Your task to perform on an android device: Open Google Chrome and open the bookmarks view Image 0: 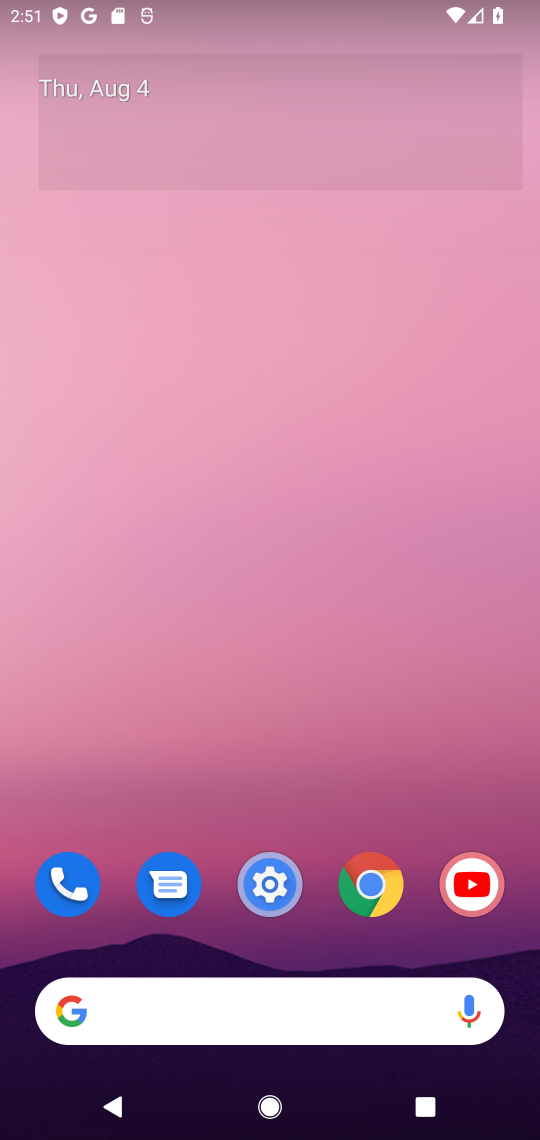
Step 0: drag from (229, 939) to (261, 429)
Your task to perform on an android device: Open Google Chrome and open the bookmarks view Image 1: 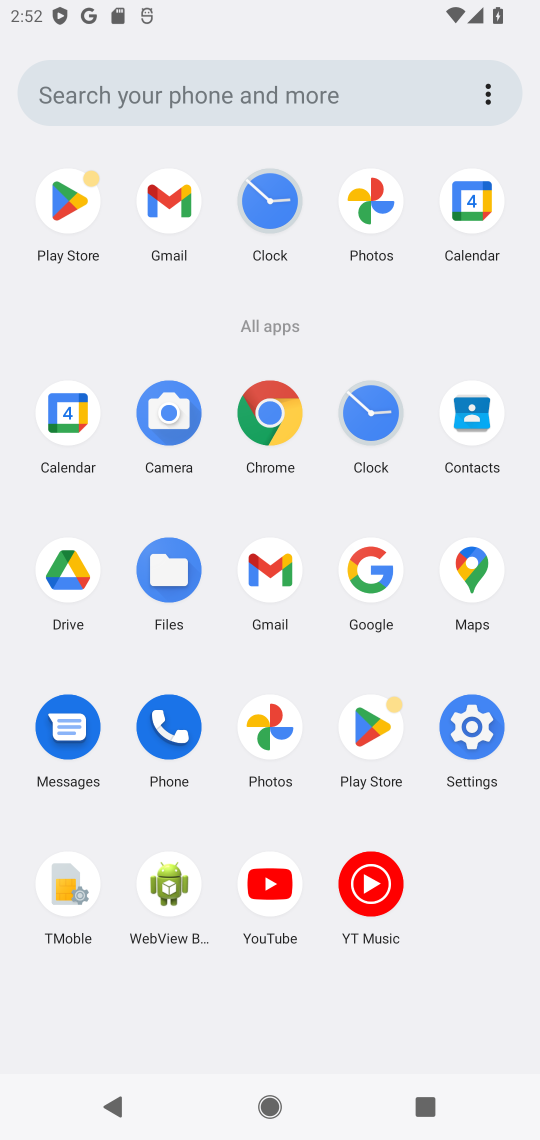
Step 1: click (274, 426)
Your task to perform on an android device: Open Google Chrome and open the bookmarks view Image 2: 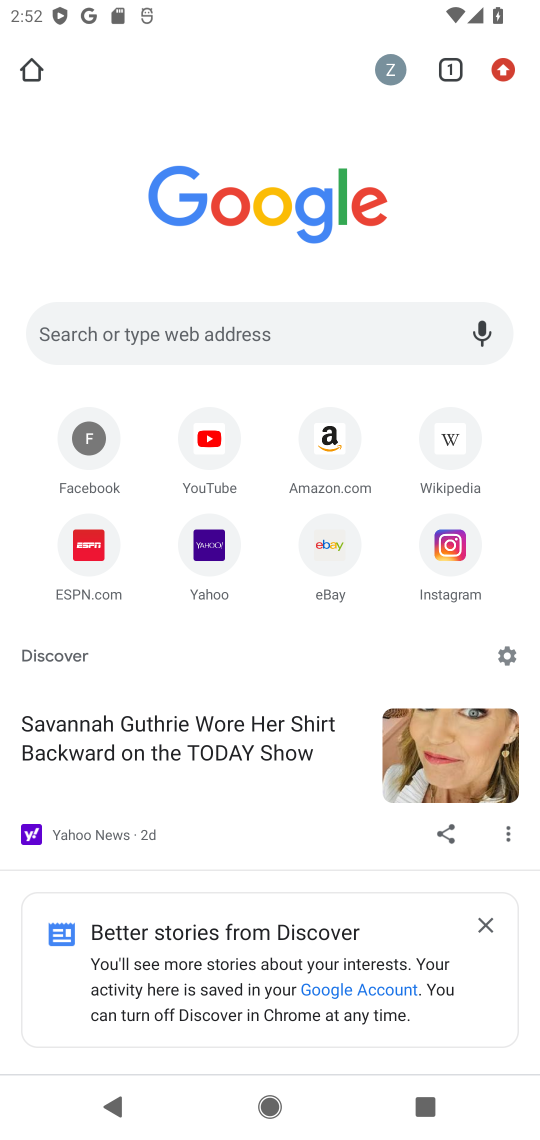
Step 2: task complete